Your task to perform on an android device: Go to sound settings Image 0: 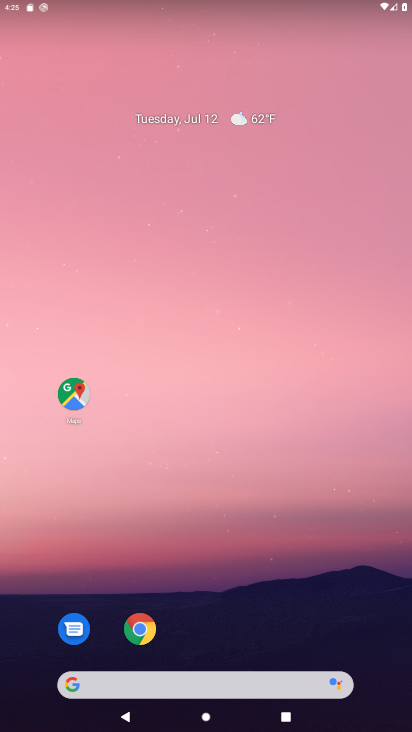
Step 0: drag from (183, 118) to (204, 3)
Your task to perform on an android device: Go to sound settings Image 1: 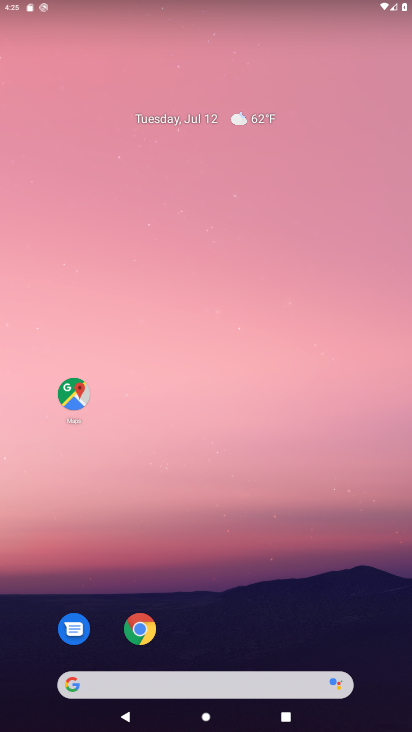
Step 1: drag from (272, 586) to (244, 88)
Your task to perform on an android device: Go to sound settings Image 2: 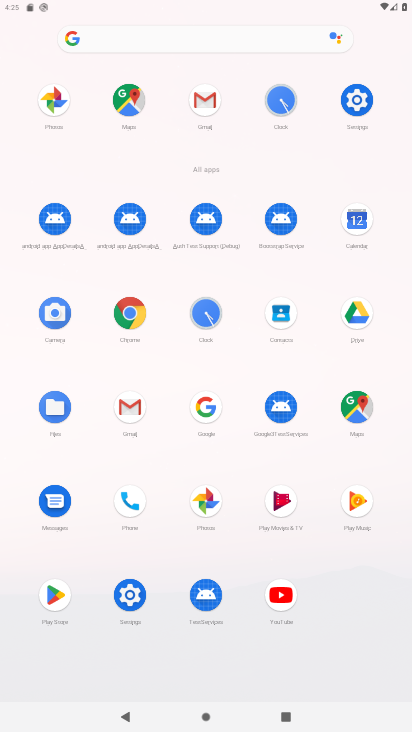
Step 2: click (363, 97)
Your task to perform on an android device: Go to sound settings Image 3: 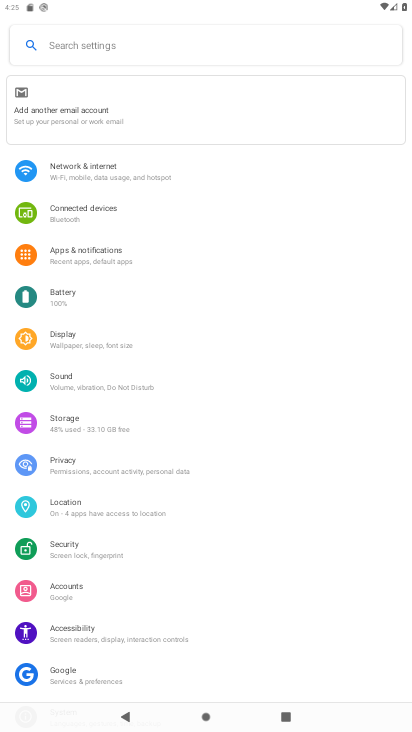
Step 3: click (64, 374)
Your task to perform on an android device: Go to sound settings Image 4: 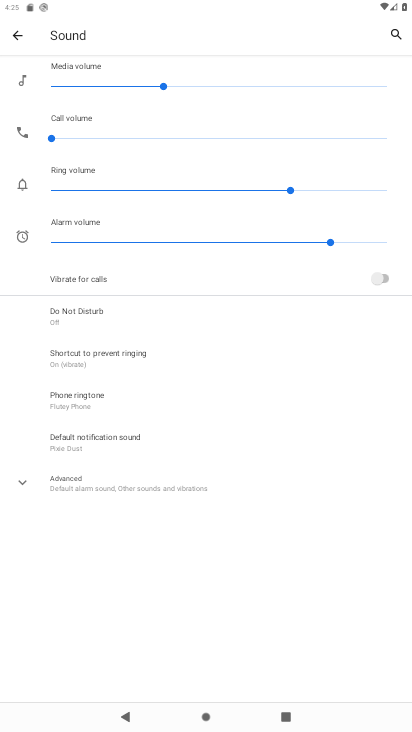
Step 4: task complete